Your task to perform on an android device: Open ESPN.com Image 0: 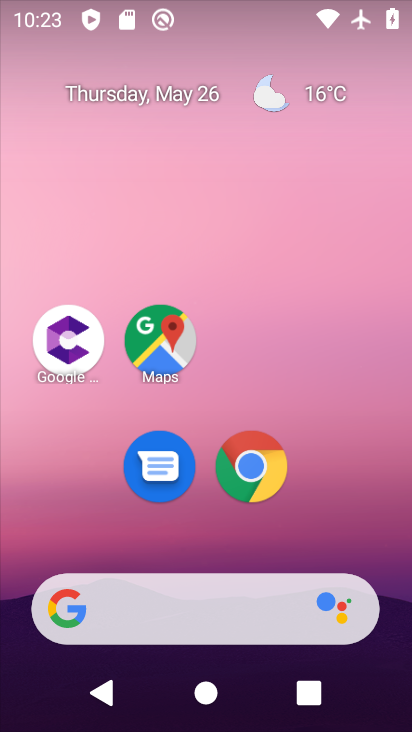
Step 0: click (249, 469)
Your task to perform on an android device: Open ESPN.com Image 1: 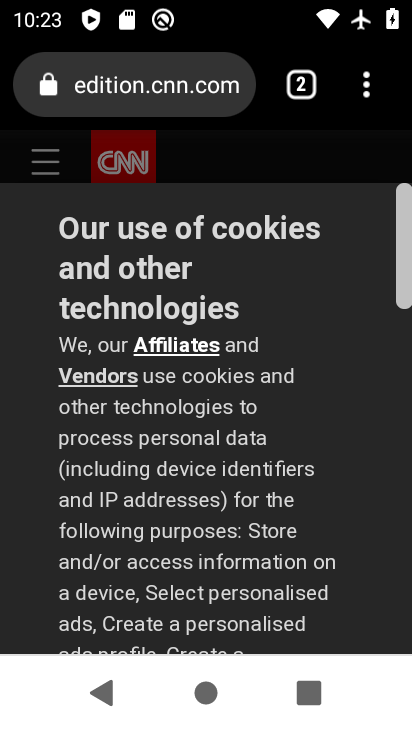
Step 1: click (363, 82)
Your task to perform on an android device: Open ESPN.com Image 2: 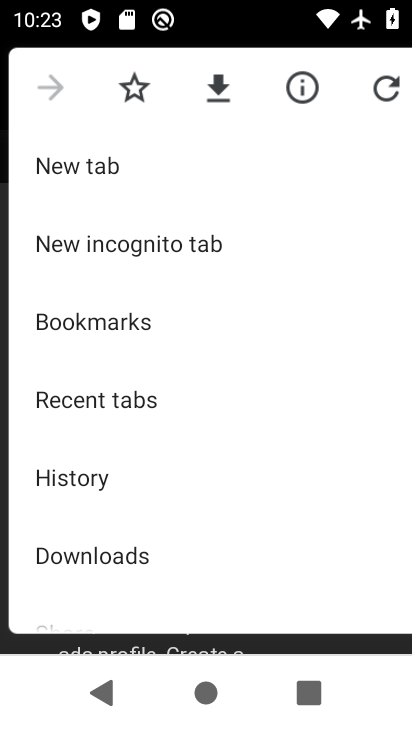
Step 2: click (87, 172)
Your task to perform on an android device: Open ESPN.com Image 3: 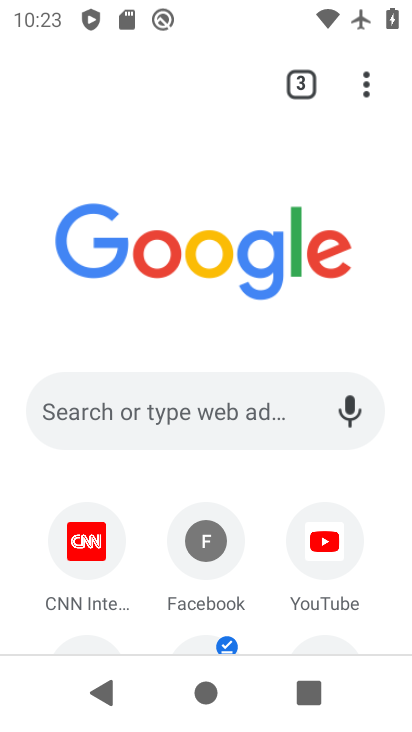
Step 3: click (173, 422)
Your task to perform on an android device: Open ESPN.com Image 4: 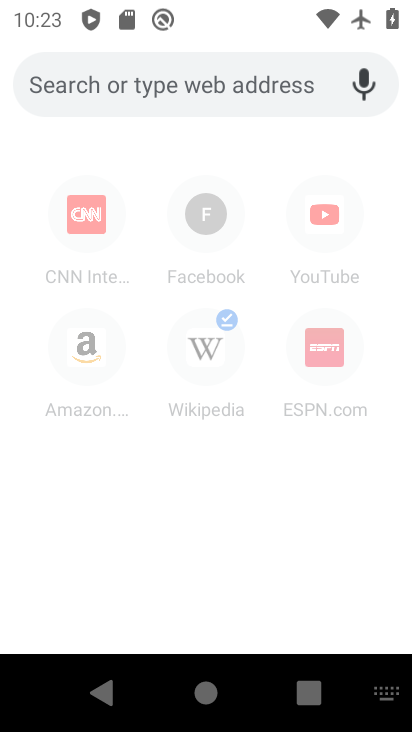
Step 4: type "espn.com"
Your task to perform on an android device: Open ESPN.com Image 5: 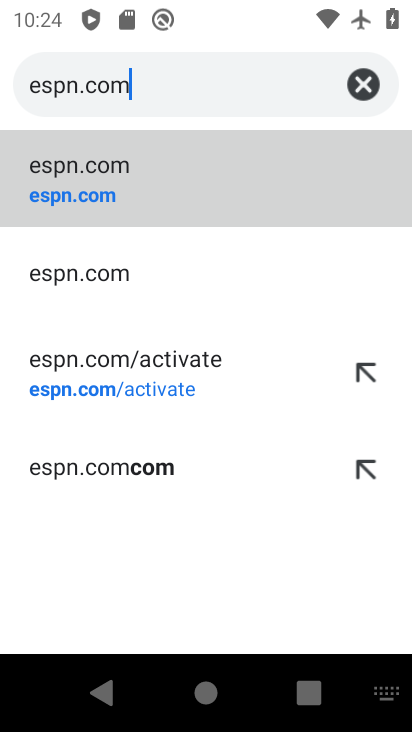
Step 5: click (86, 168)
Your task to perform on an android device: Open ESPN.com Image 6: 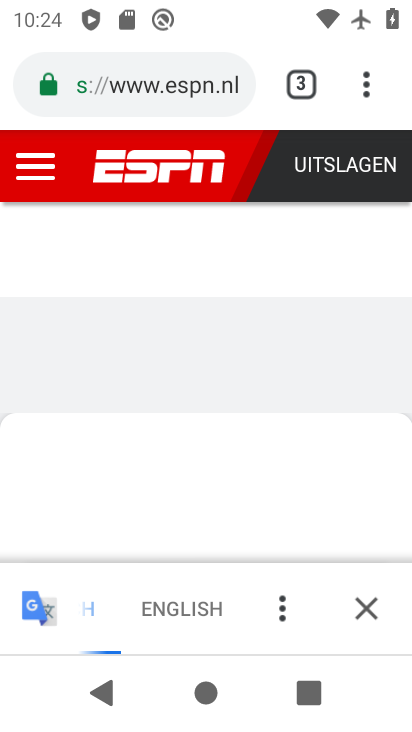
Step 6: task complete